Your task to perform on an android device: Go to battery settings Image 0: 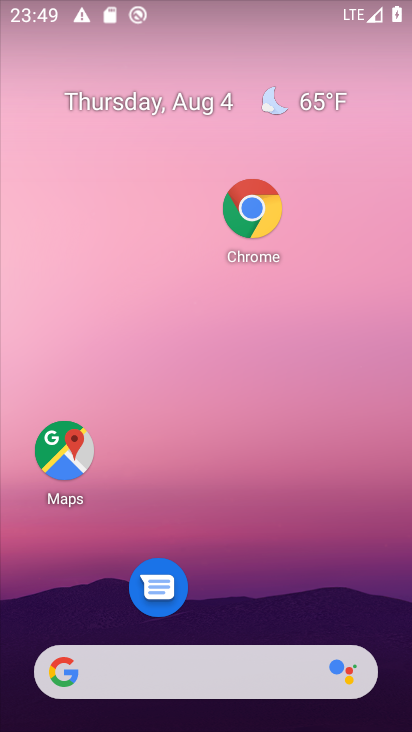
Step 0: drag from (277, 569) to (278, 209)
Your task to perform on an android device: Go to battery settings Image 1: 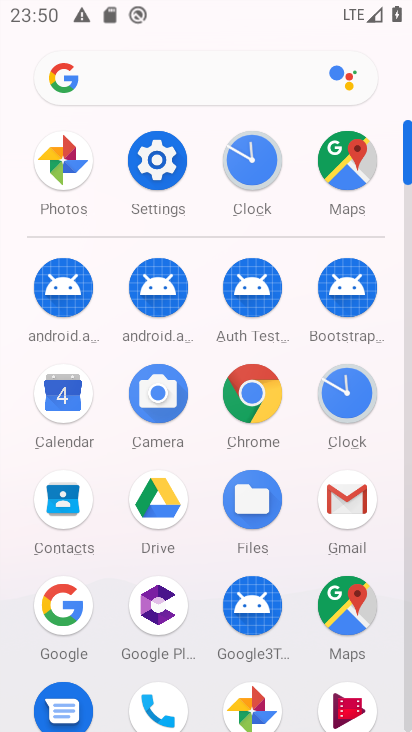
Step 1: click (154, 157)
Your task to perform on an android device: Go to battery settings Image 2: 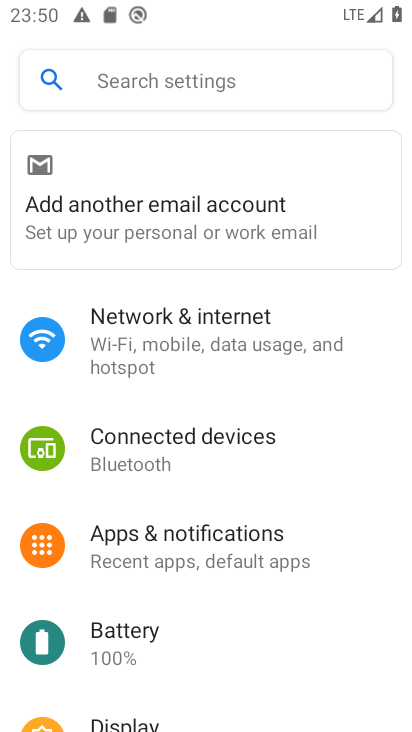
Step 2: drag from (175, 621) to (278, 184)
Your task to perform on an android device: Go to battery settings Image 3: 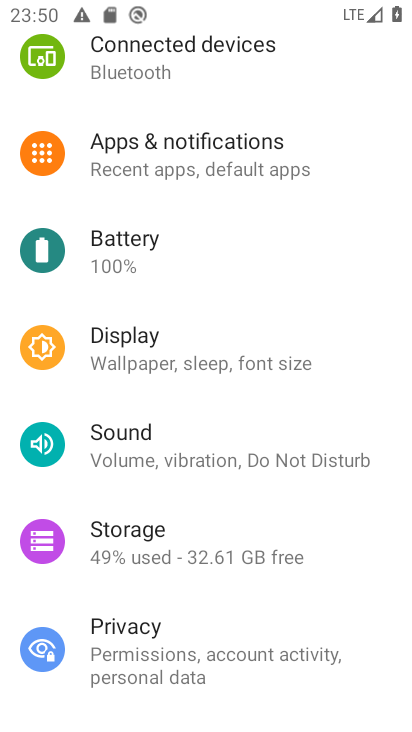
Step 3: click (153, 234)
Your task to perform on an android device: Go to battery settings Image 4: 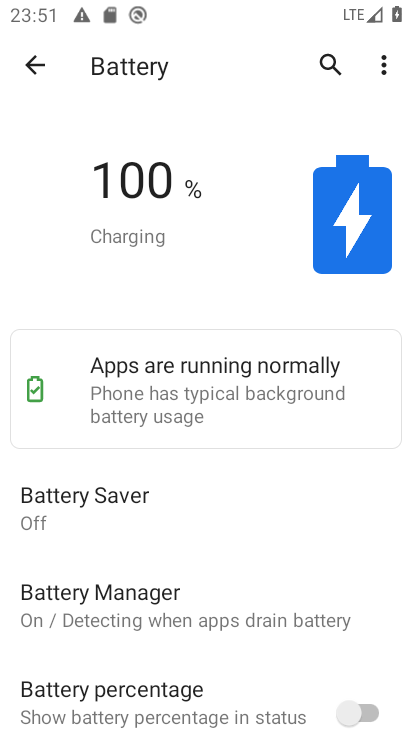
Step 4: task complete